Your task to perform on an android device: turn off translation in the chrome app Image 0: 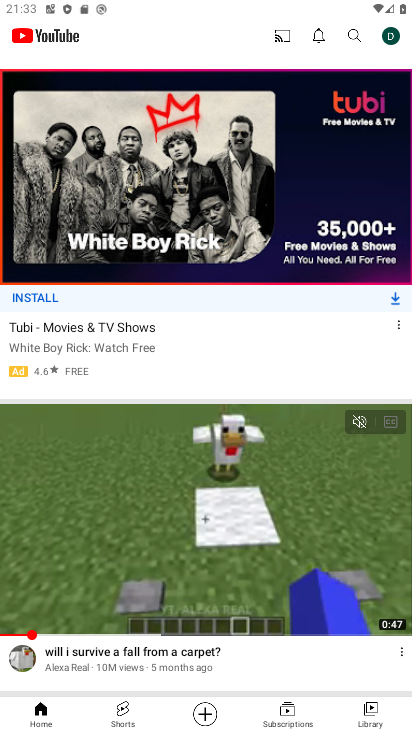
Step 0: press home button
Your task to perform on an android device: turn off translation in the chrome app Image 1: 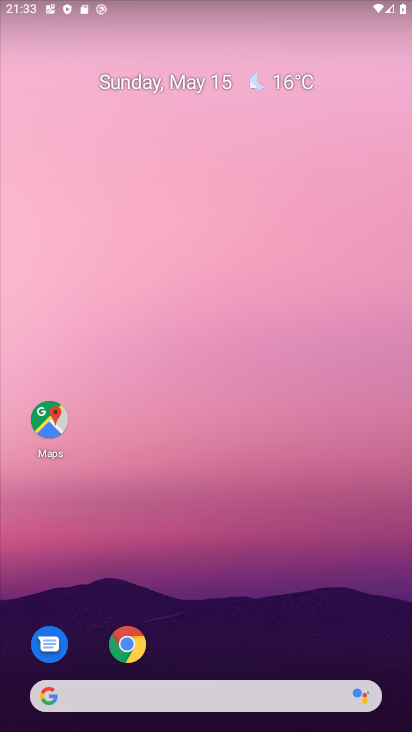
Step 1: click (139, 640)
Your task to perform on an android device: turn off translation in the chrome app Image 2: 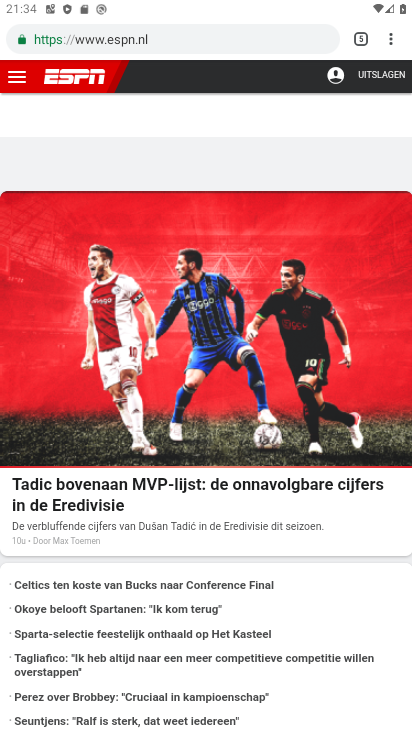
Step 2: drag from (389, 33) to (257, 435)
Your task to perform on an android device: turn off translation in the chrome app Image 3: 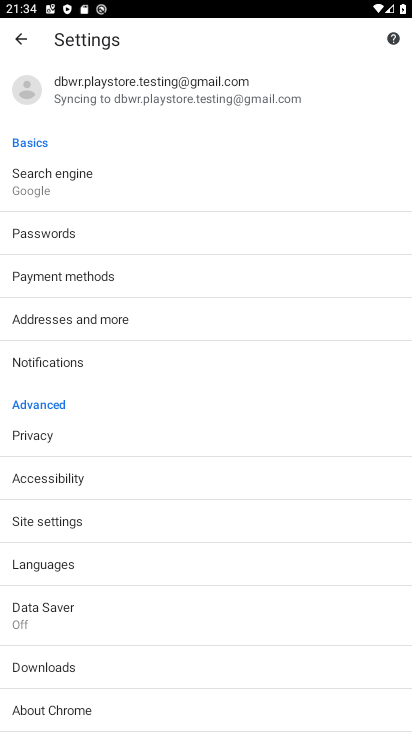
Step 3: click (42, 562)
Your task to perform on an android device: turn off translation in the chrome app Image 4: 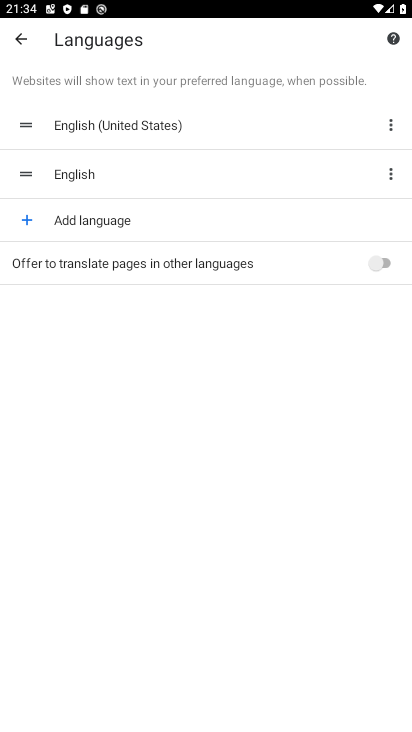
Step 4: task complete